Your task to perform on an android device: set the timer Image 0: 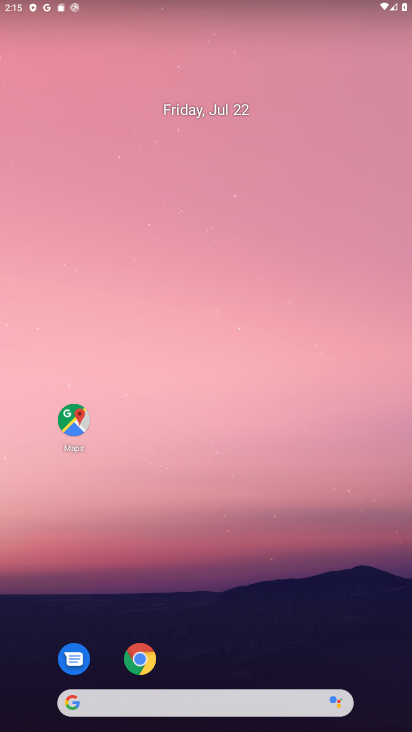
Step 0: drag from (203, 326) to (204, 258)
Your task to perform on an android device: set the timer Image 1: 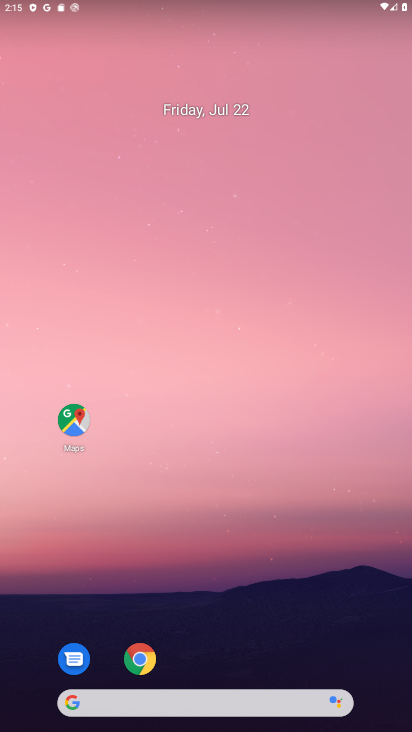
Step 1: drag from (248, 513) to (264, 32)
Your task to perform on an android device: set the timer Image 2: 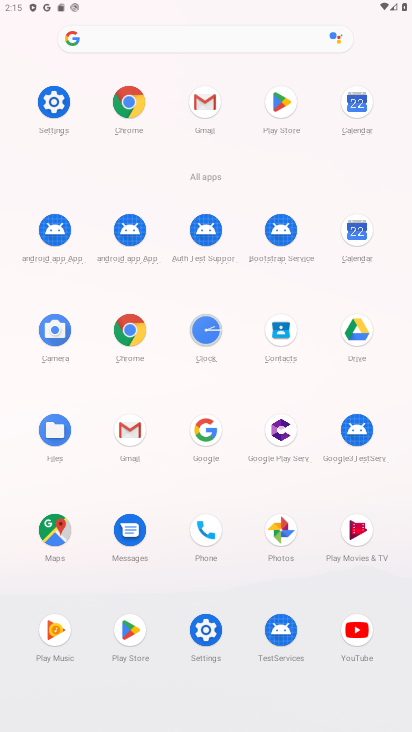
Step 2: click (204, 359)
Your task to perform on an android device: set the timer Image 3: 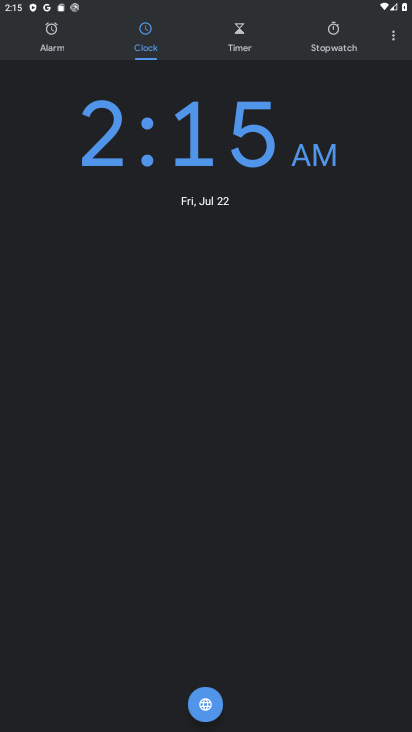
Step 3: click (232, 56)
Your task to perform on an android device: set the timer Image 4: 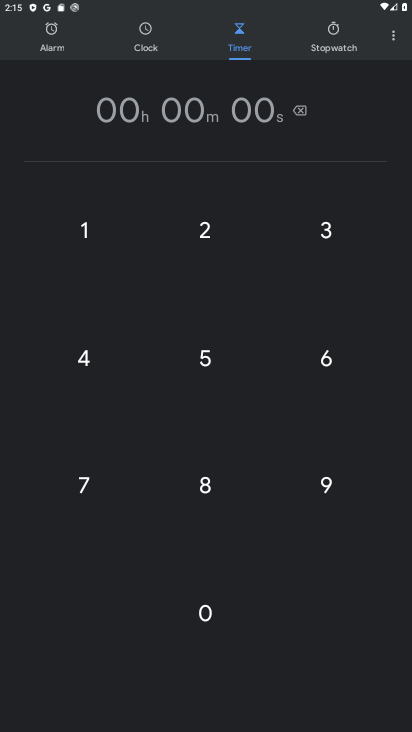
Step 4: click (79, 242)
Your task to perform on an android device: set the timer Image 5: 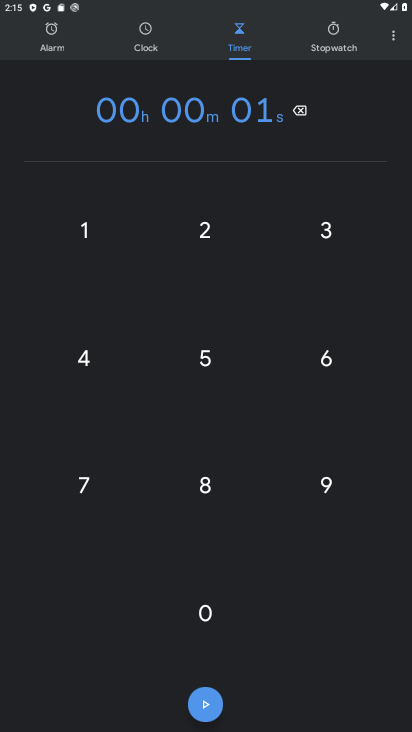
Step 5: click (205, 608)
Your task to perform on an android device: set the timer Image 6: 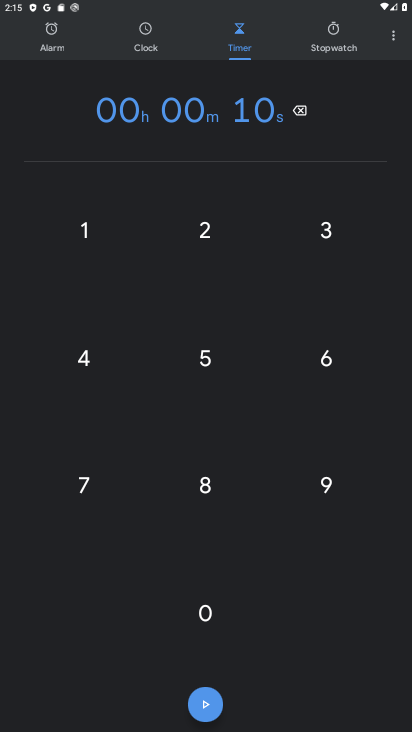
Step 6: click (205, 608)
Your task to perform on an android device: set the timer Image 7: 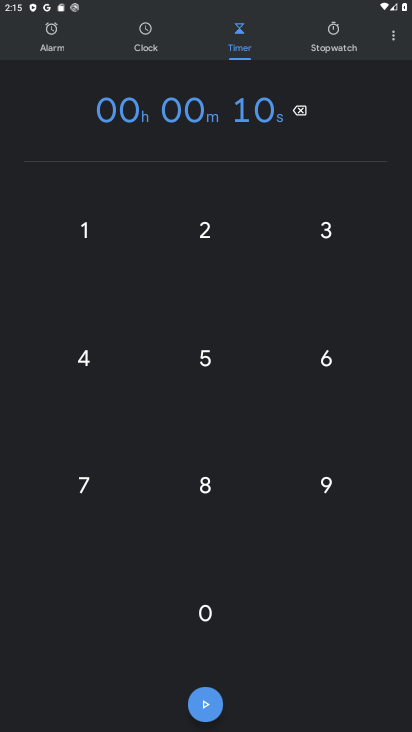
Step 7: click (205, 608)
Your task to perform on an android device: set the timer Image 8: 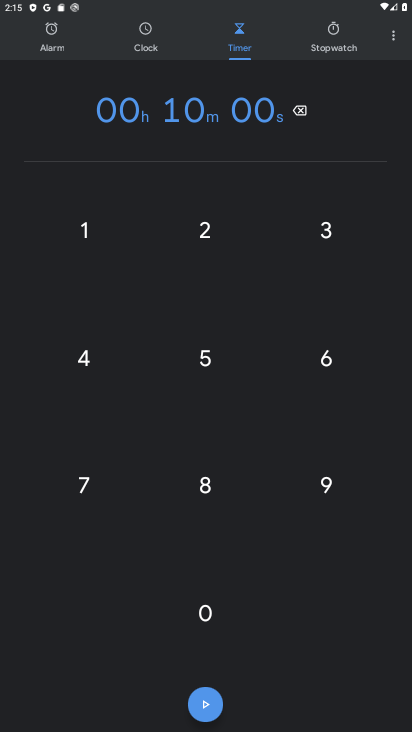
Step 8: task complete